Your task to perform on an android device: Open the calendar app, open the side menu, and click the "Day" option Image 0: 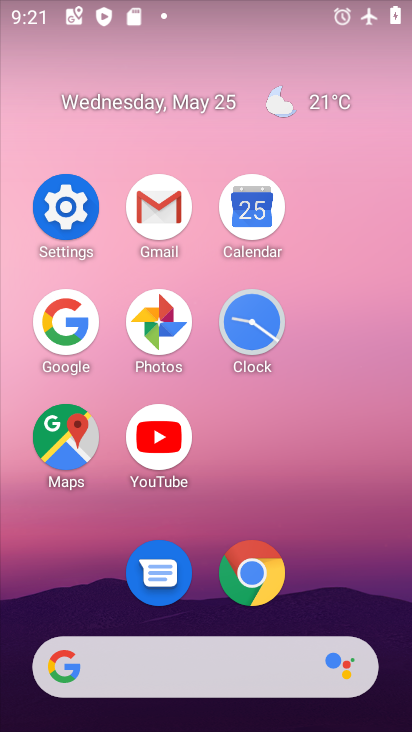
Step 0: click (236, 211)
Your task to perform on an android device: Open the calendar app, open the side menu, and click the "Day" option Image 1: 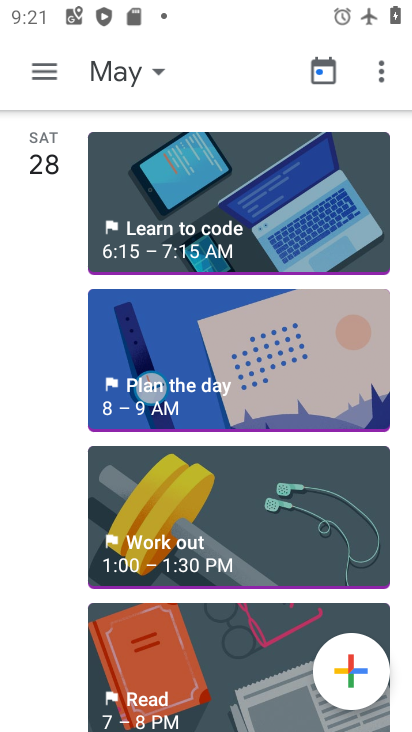
Step 1: click (43, 75)
Your task to perform on an android device: Open the calendar app, open the side menu, and click the "Day" option Image 2: 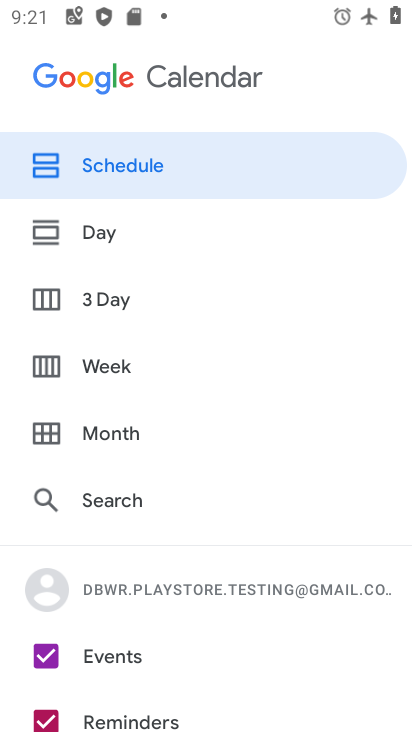
Step 2: click (169, 238)
Your task to perform on an android device: Open the calendar app, open the side menu, and click the "Day" option Image 3: 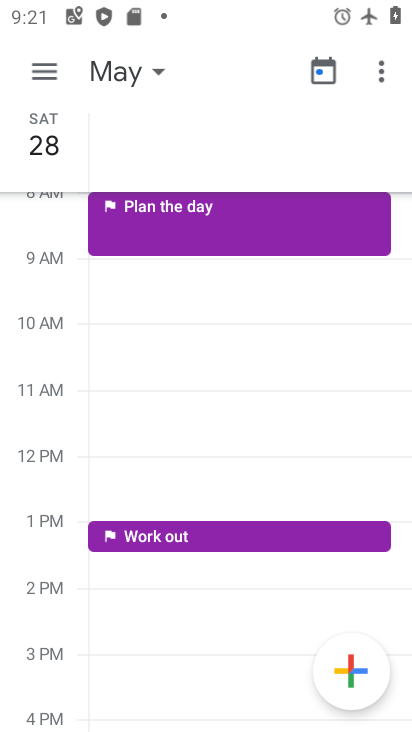
Step 3: task complete